Your task to perform on an android device: What is the recent news? Image 0: 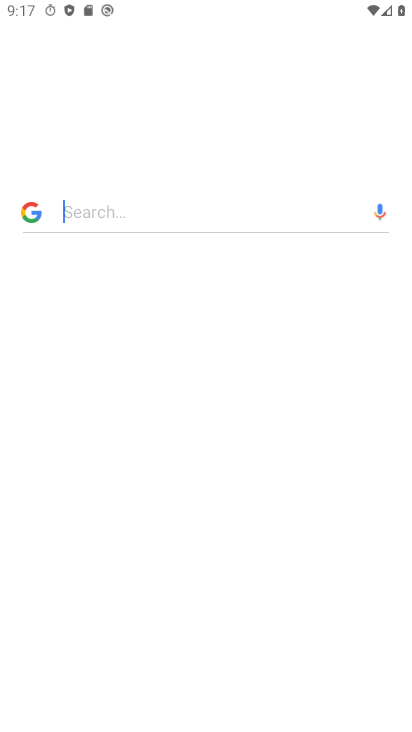
Step 0: drag from (273, 697) to (177, 143)
Your task to perform on an android device: What is the recent news? Image 1: 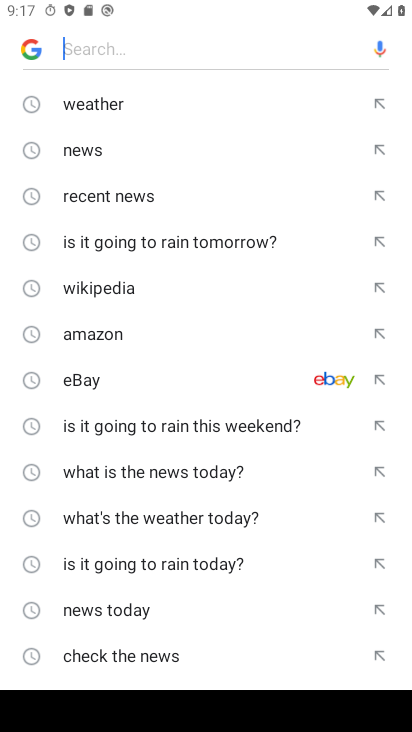
Step 1: click (95, 143)
Your task to perform on an android device: What is the recent news? Image 2: 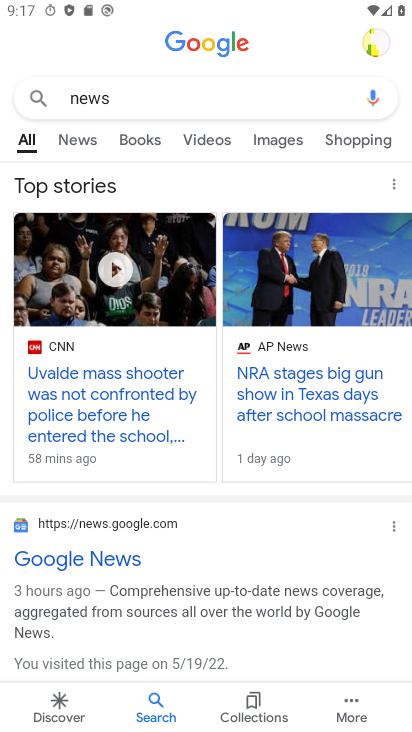
Step 2: task complete